Your task to perform on an android device: find which apps use the phone's location Image 0: 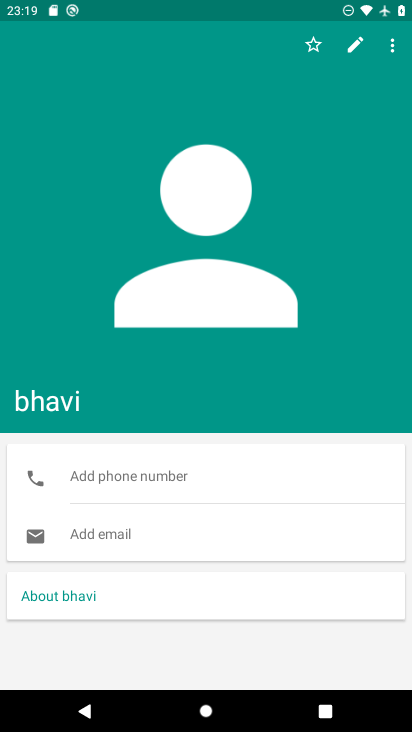
Step 0: press home button
Your task to perform on an android device: find which apps use the phone's location Image 1: 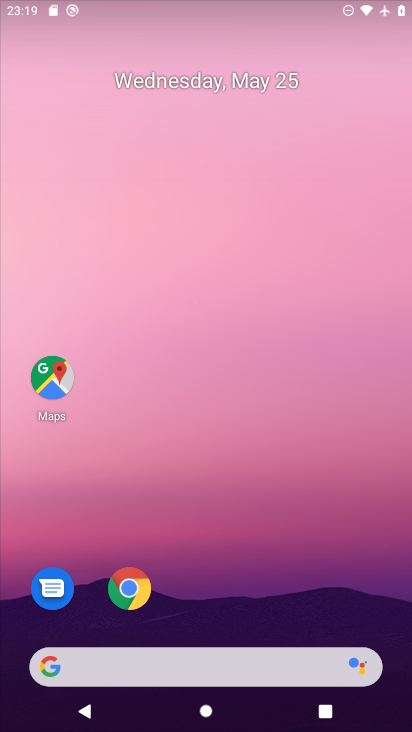
Step 1: drag from (305, 463) to (316, 11)
Your task to perform on an android device: find which apps use the phone's location Image 2: 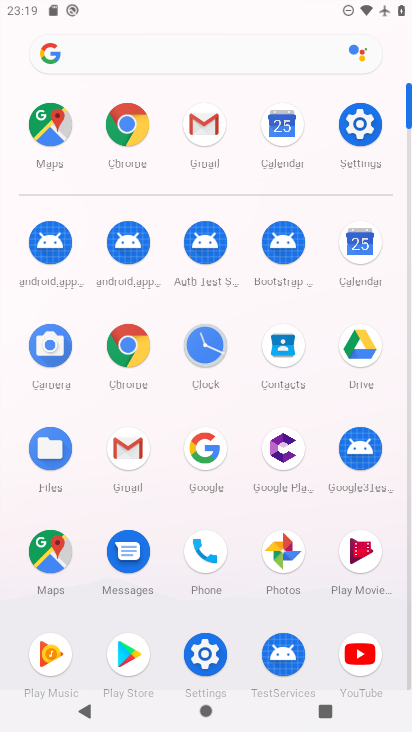
Step 2: click (362, 125)
Your task to perform on an android device: find which apps use the phone's location Image 3: 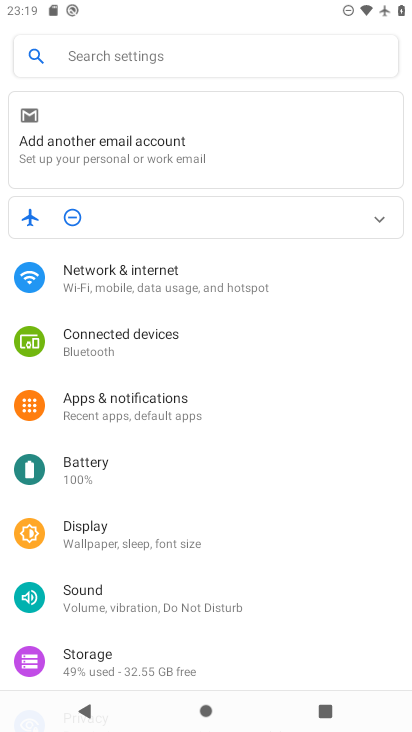
Step 3: drag from (192, 578) to (257, 184)
Your task to perform on an android device: find which apps use the phone's location Image 4: 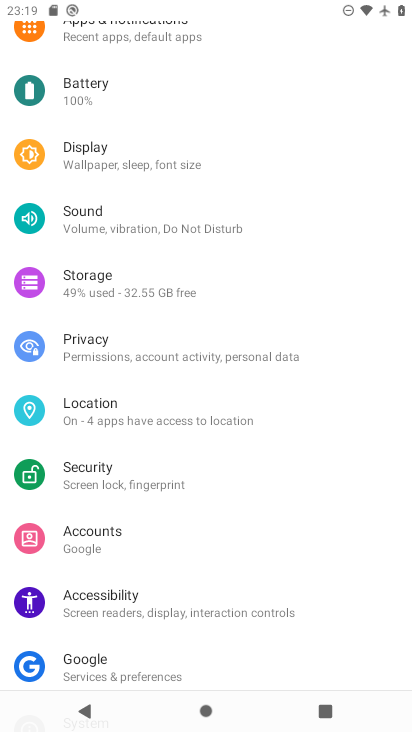
Step 4: click (132, 408)
Your task to perform on an android device: find which apps use the phone's location Image 5: 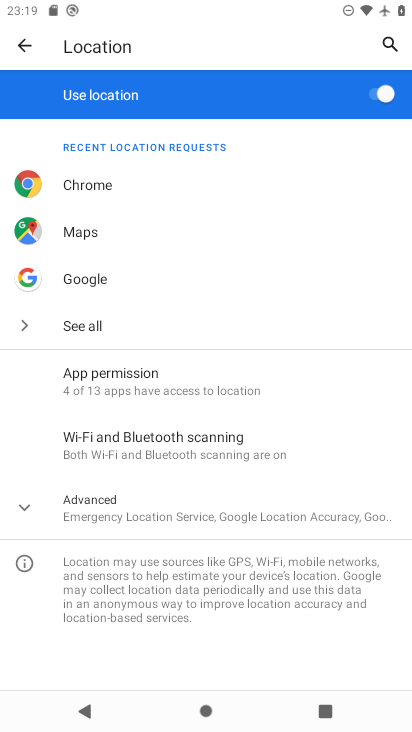
Step 5: click (155, 375)
Your task to perform on an android device: find which apps use the phone's location Image 6: 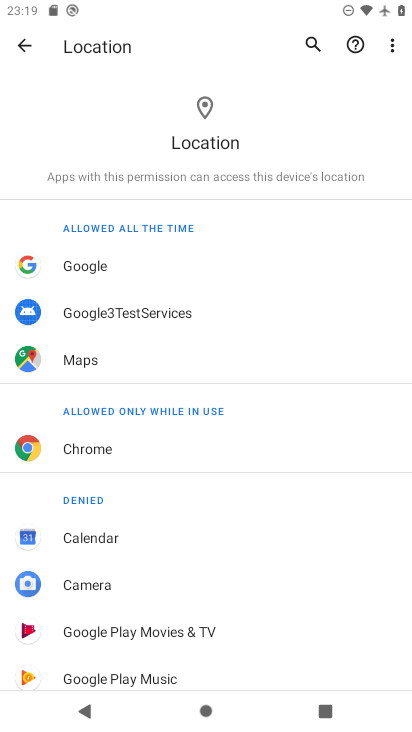
Step 6: task complete